Your task to perform on an android device: turn on the 12-hour format for clock Image 0: 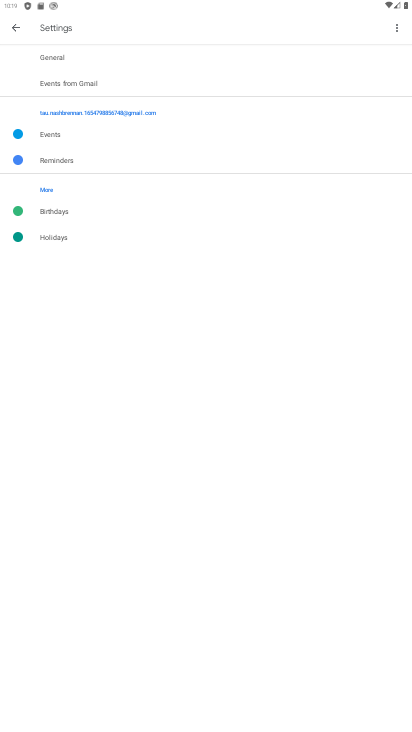
Step 0: press home button
Your task to perform on an android device: turn on the 12-hour format for clock Image 1: 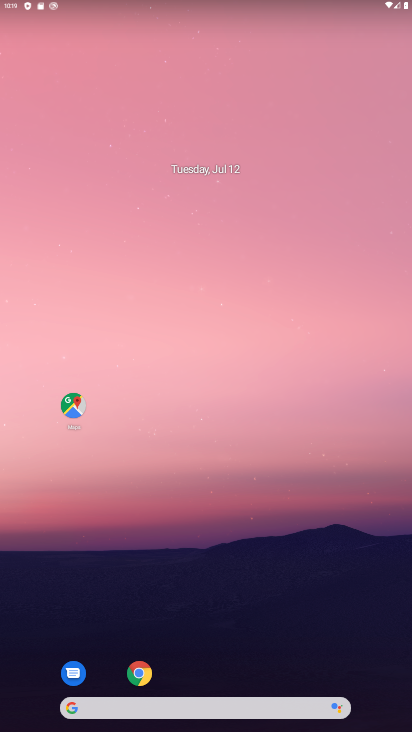
Step 1: drag from (235, 504) to (241, 7)
Your task to perform on an android device: turn on the 12-hour format for clock Image 2: 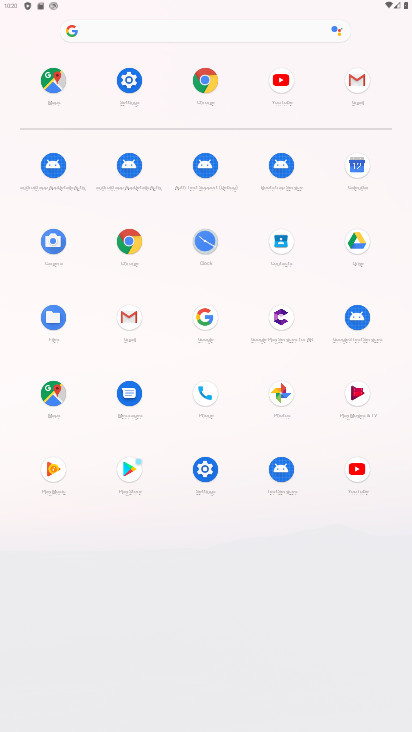
Step 2: click (204, 238)
Your task to perform on an android device: turn on the 12-hour format for clock Image 3: 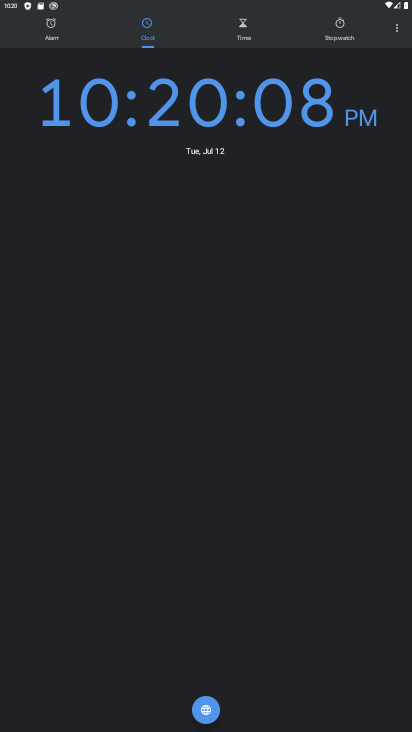
Step 3: click (403, 29)
Your task to perform on an android device: turn on the 12-hour format for clock Image 4: 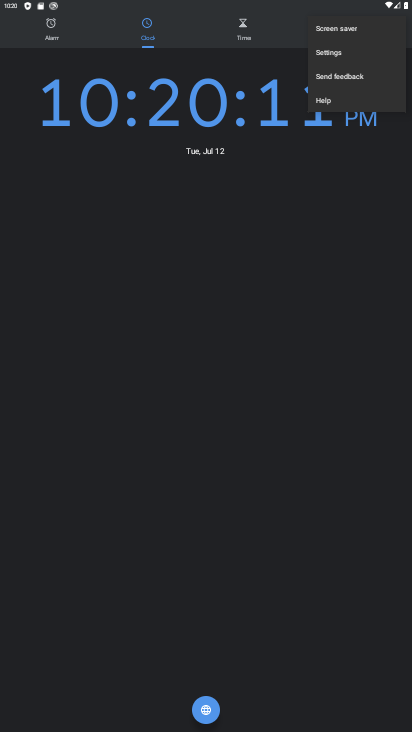
Step 4: click (335, 49)
Your task to perform on an android device: turn on the 12-hour format for clock Image 5: 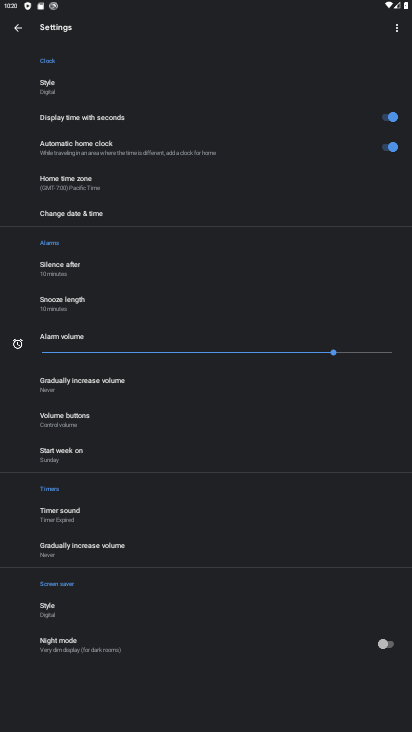
Step 5: click (90, 221)
Your task to perform on an android device: turn on the 12-hour format for clock Image 6: 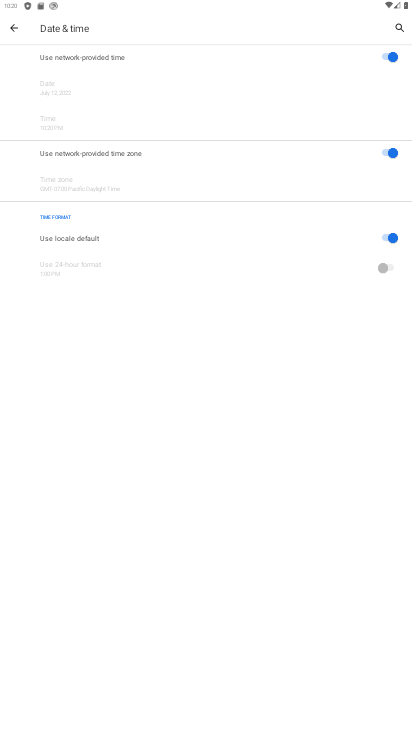
Step 6: task complete